Your task to perform on an android device: read, delete, or share a saved page in the chrome app Image 0: 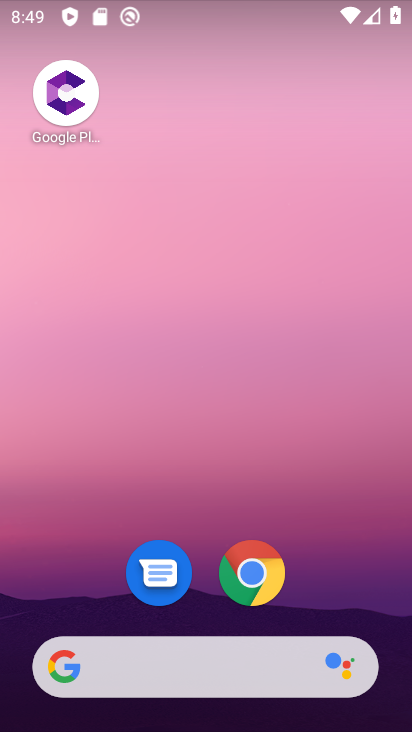
Step 0: click (259, 586)
Your task to perform on an android device: read, delete, or share a saved page in the chrome app Image 1: 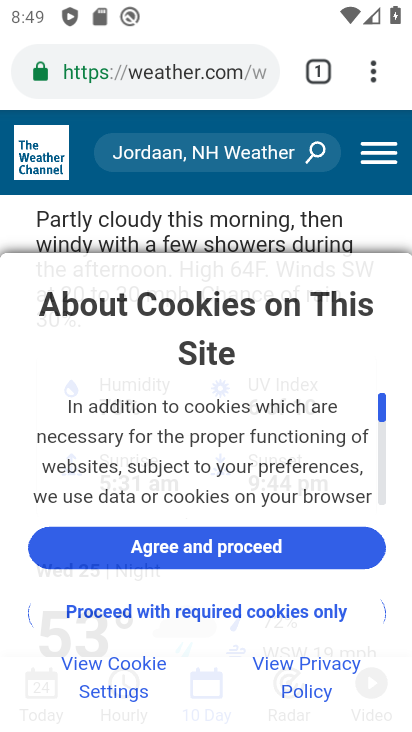
Step 1: drag from (374, 59) to (236, 500)
Your task to perform on an android device: read, delete, or share a saved page in the chrome app Image 2: 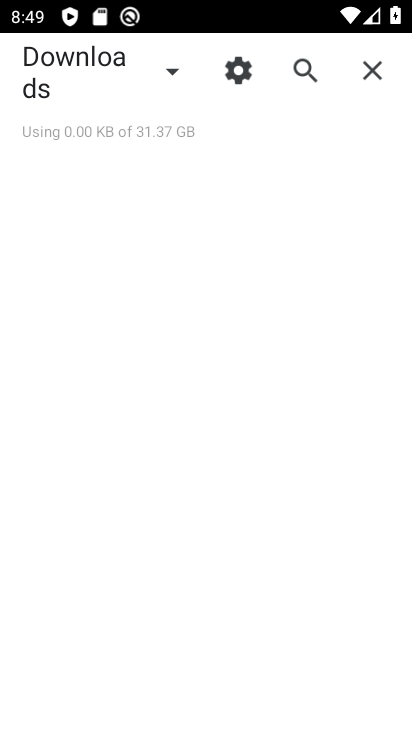
Step 2: click (146, 87)
Your task to perform on an android device: read, delete, or share a saved page in the chrome app Image 3: 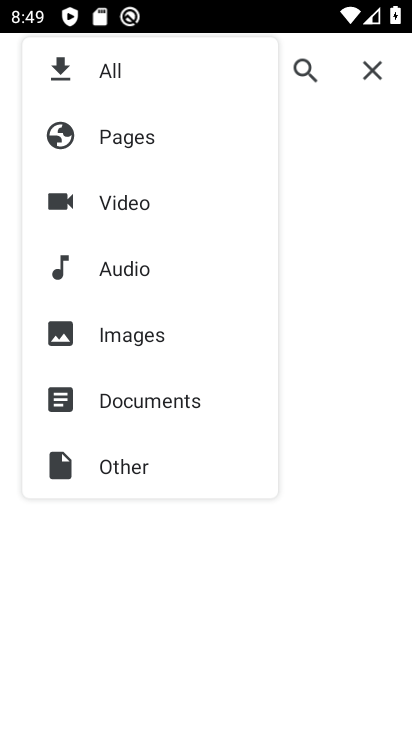
Step 3: click (185, 146)
Your task to perform on an android device: read, delete, or share a saved page in the chrome app Image 4: 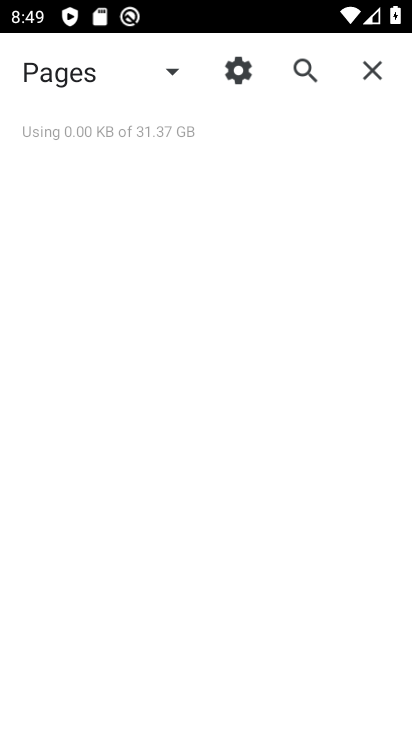
Step 4: task complete